Your task to perform on an android device: Empty the shopping cart on bestbuy.com. Add "usb-a" to the cart on bestbuy.com Image 0: 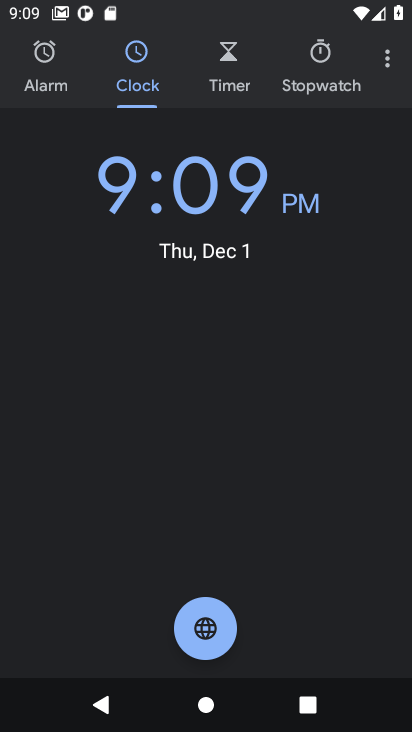
Step 0: press home button
Your task to perform on an android device: Empty the shopping cart on bestbuy.com. Add "usb-a" to the cart on bestbuy.com Image 1: 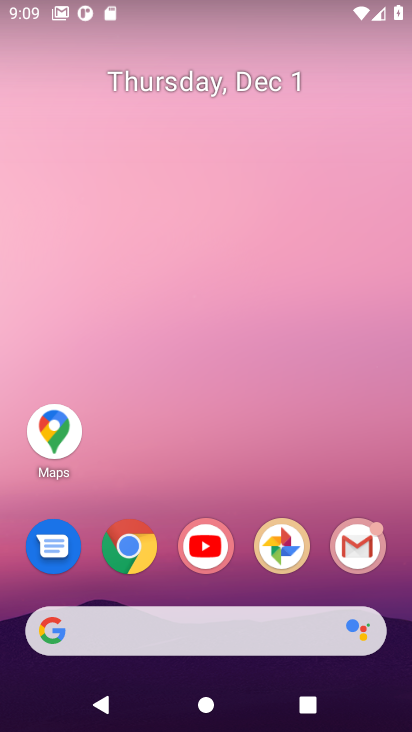
Step 1: click (129, 549)
Your task to perform on an android device: Empty the shopping cart on bestbuy.com. Add "usb-a" to the cart on bestbuy.com Image 2: 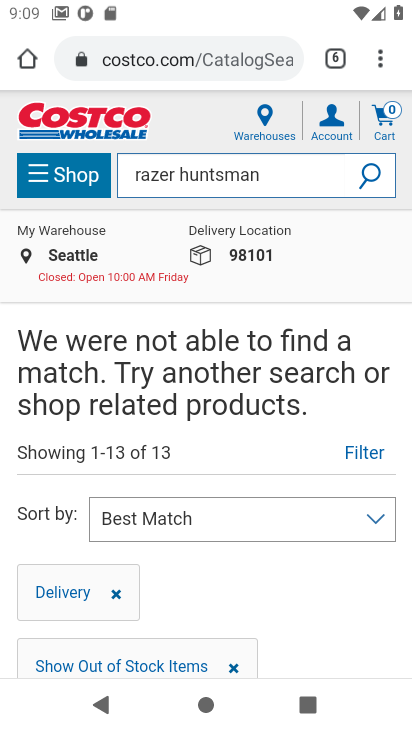
Step 2: click (167, 56)
Your task to perform on an android device: Empty the shopping cart on bestbuy.com. Add "usb-a" to the cart on bestbuy.com Image 3: 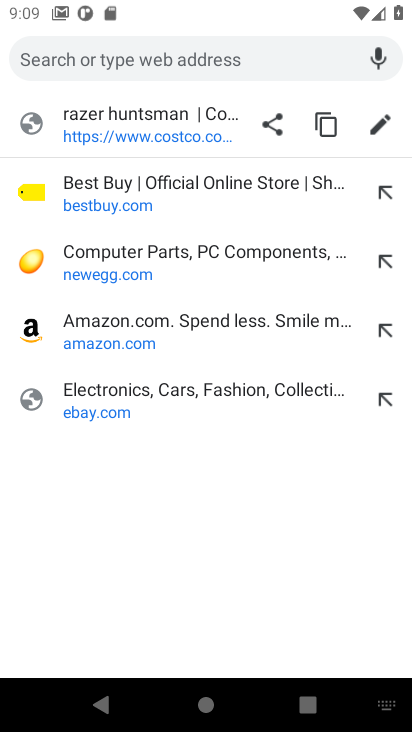
Step 3: click (88, 190)
Your task to perform on an android device: Empty the shopping cart on bestbuy.com. Add "usb-a" to the cart on bestbuy.com Image 4: 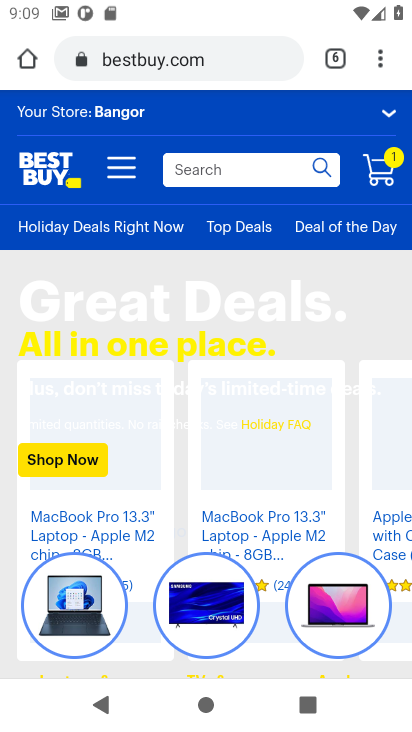
Step 4: click (385, 168)
Your task to perform on an android device: Empty the shopping cart on bestbuy.com. Add "usb-a" to the cart on bestbuy.com Image 5: 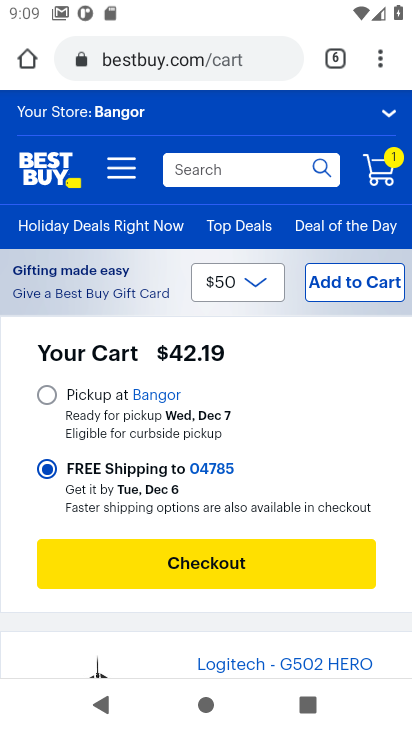
Step 5: drag from (266, 416) to (284, 229)
Your task to perform on an android device: Empty the shopping cart on bestbuy.com. Add "usb-a" to the cart on bestbuy.com Image 6: 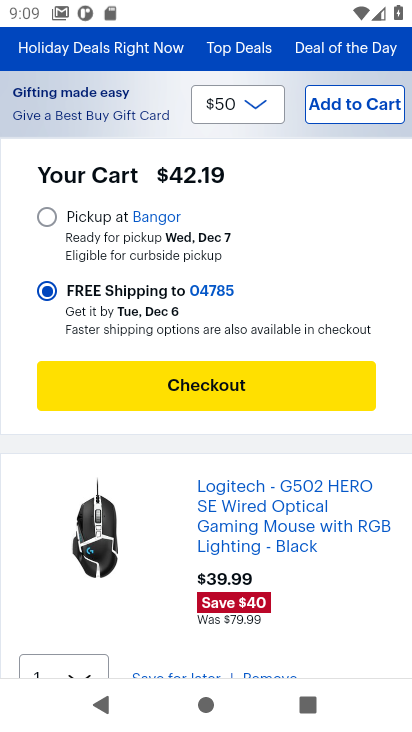
Step 6: drag from (190, 433) to (181, 215)
Your task to perform on an android device: Empty the shopping cart on bestbuy.com. Add "usb-a" to the cart on bestbuy.com Image 7: 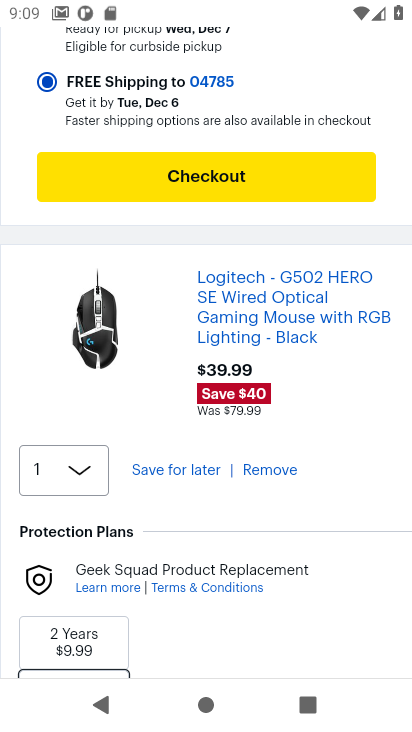
Step 7: click (259, 471)
Your task to perform on an android device: Empty the shopping cart on bestbuy.com. Add "usb-a" to the cart on bestbuy.com Image 8: 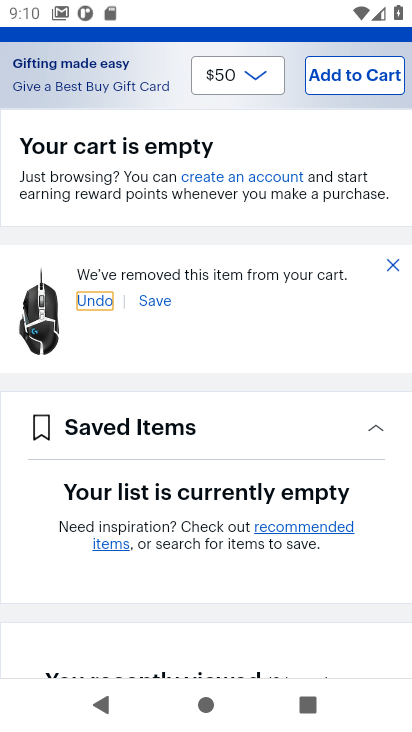
Step 8: drag from (268, 156) to (272, 456)
Your task to perform on an android device: Empty the shopping cart on bestbuy.com. Add "usb-a" to the cart on bestbuy.com Image 9: 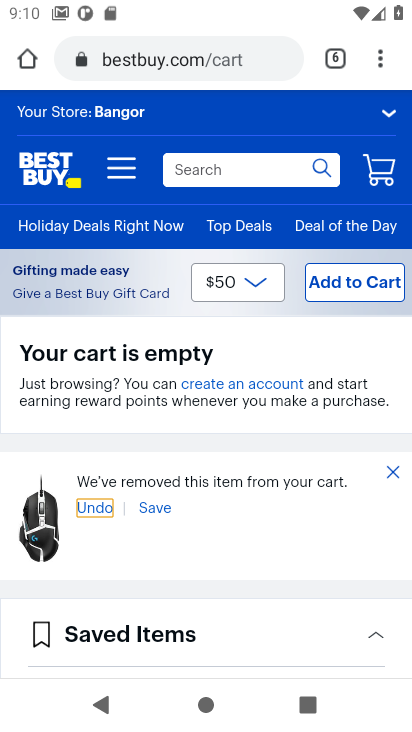
Step 9: click (188, 170)
Your task to perform on an android device: Empty the shopping cart on bestbuy.com. Add "usb-a" to the cart on bestbuy.com Image 10: 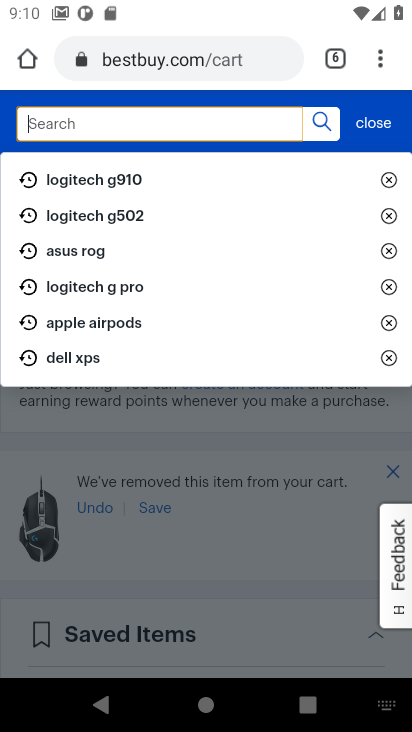
Step 10: type "usb-a"
Your task to perform on an android device: Empty the shopping cart on bestbuy.com. Add "usb-a" to the cart on bestbuy.com Image 11: 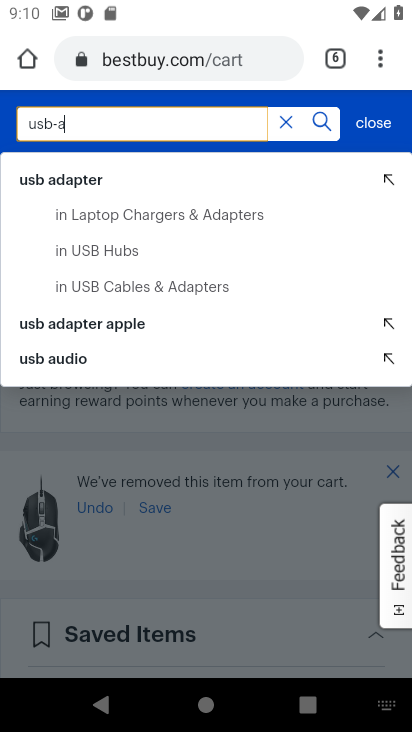
Step 11: click (317, 125)
Your task to perform on an android device: Empty the shopping cart on bestbuy.com. Add "usb-a" to the cart on bestbuy.com Image 12: 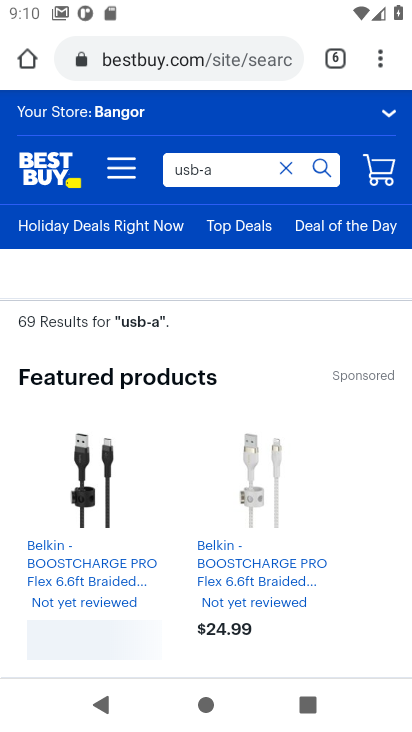
Step 12: drag from (234, 345) to (212, 142)
Your task to perform on an android device: Empty the shopping cart on bestbuy.com. Add "usb-a" to the cart on bestbuy.com Image 13: 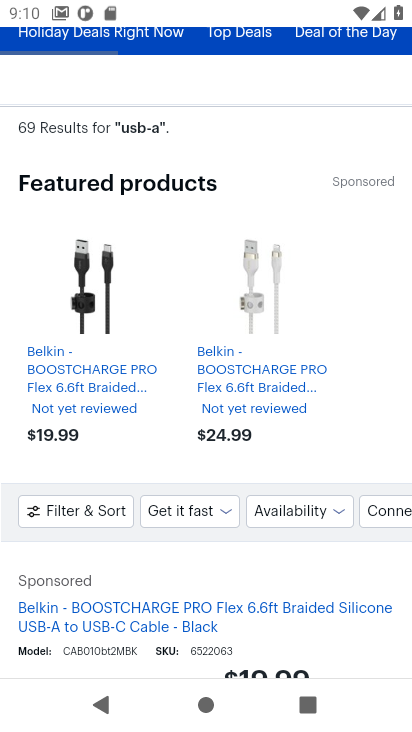
Step 13: drag from (184, 363) to (178, 179)
Your task to perform on an android device: Empty the shopping cart on bestbuy.com. Add "usb-a" to the cart on bestbuy.com Image 14: 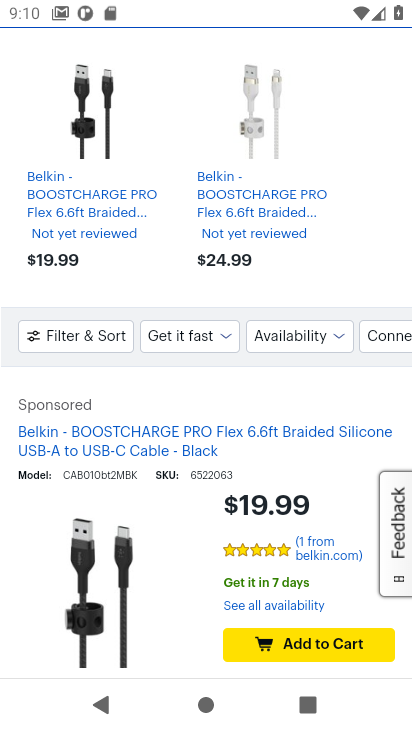
Step 14: click (296, 646)
Your task to perform on an android device: Empty the shopping cart on bestbuy.com. Add "usb-a" to the cart on bestbuy.com Image 15: 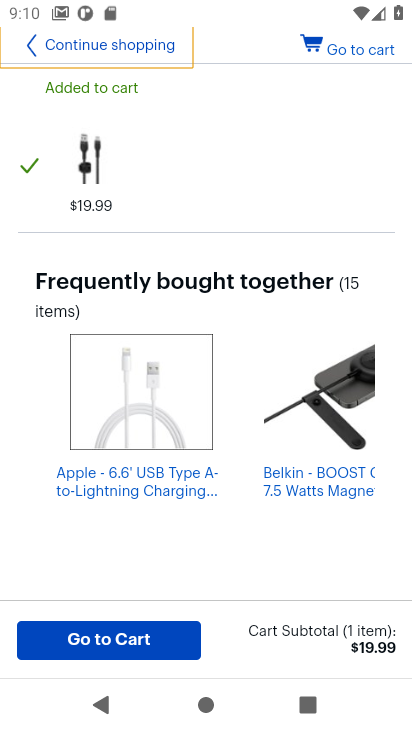
Step 15: task complete